Your task to perform on an android device: Go to Google maps Image 0: 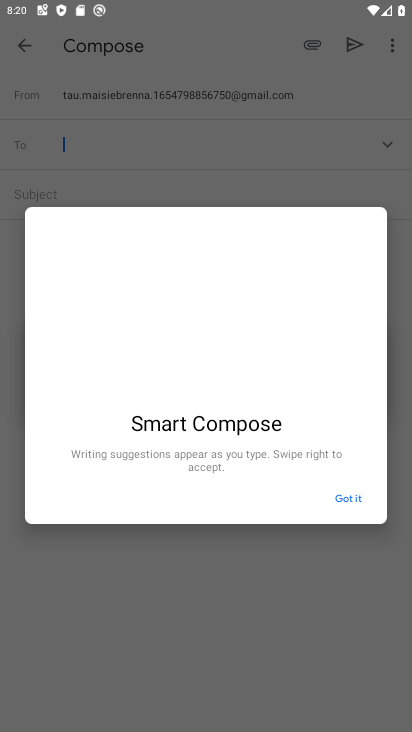
Step 0: press back button
Your task to perform on an android device: Go to Google maps Image 1: 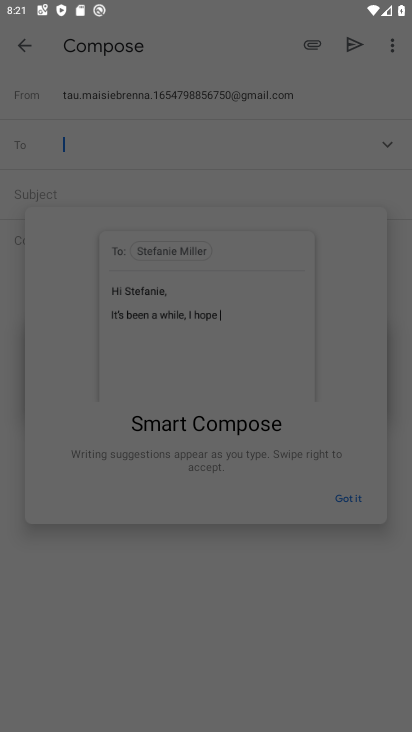
Step 1: press home button
Your task to perform on an android device: Go to Google maps Image 2: 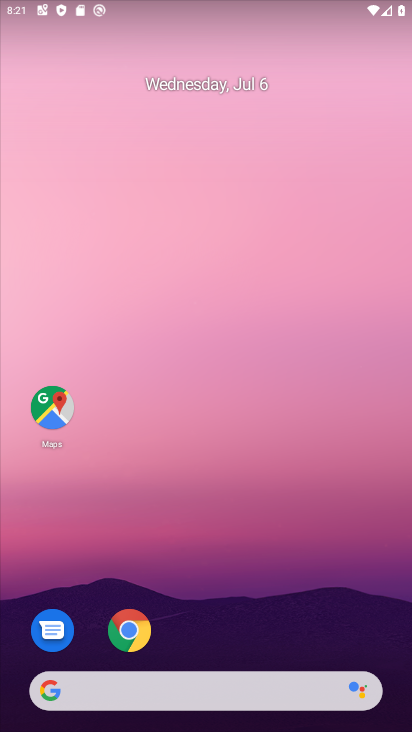
Step 2: click (55, 399)
Your task to perform on an android device: Go to Google maps Image 3: 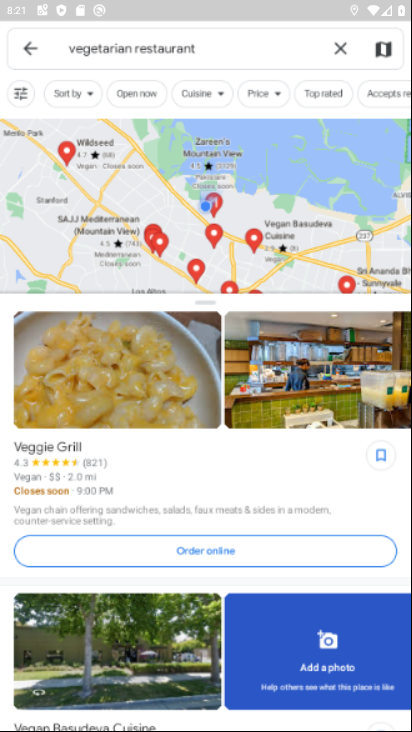
Step 3: click (27, 57)
Your task to perform on an android device: Go to Google maps Image 4: 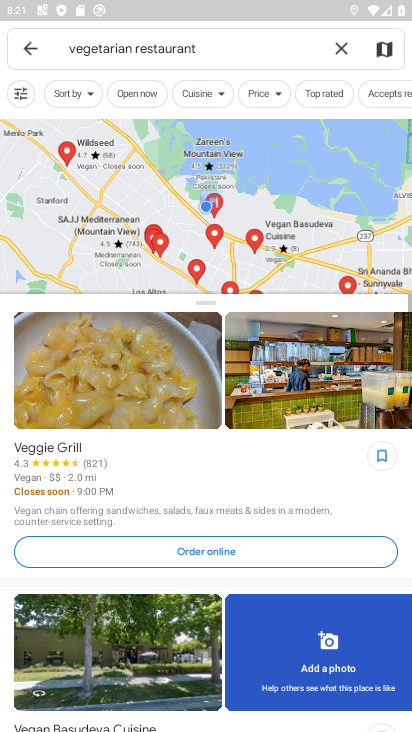
Step 4: click (27, 50)
Your task to perform on an android device: Go to Google maps Image 5: 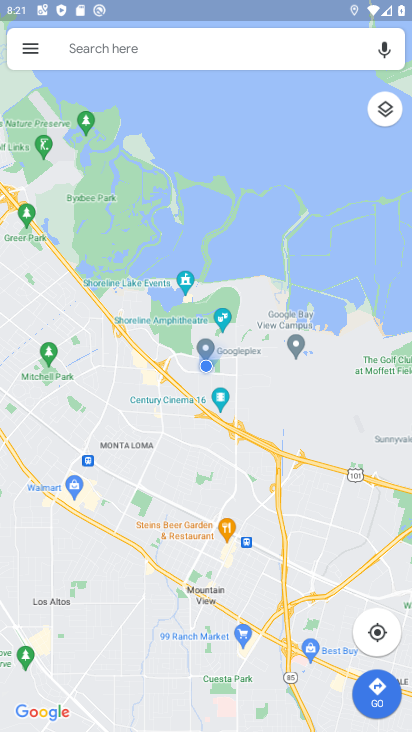
Step 5: task complete